Your task to perform on an android device: add a contact in the contacts app Image 0: 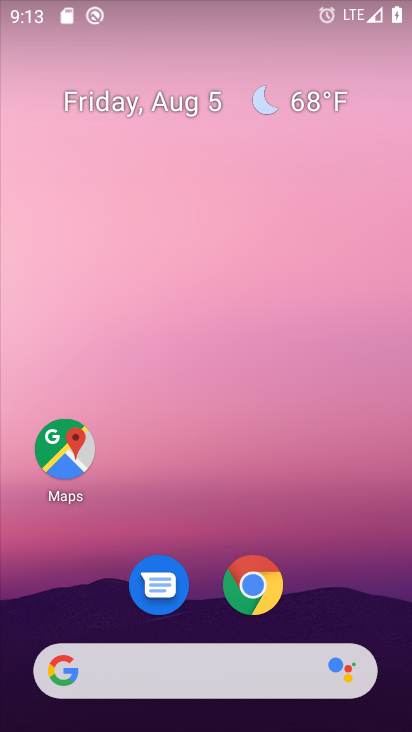
Step 0: drag from (220, 436) to (239, 8)
Your task to perform on an android device: add a contact in the contacts app Image 1: 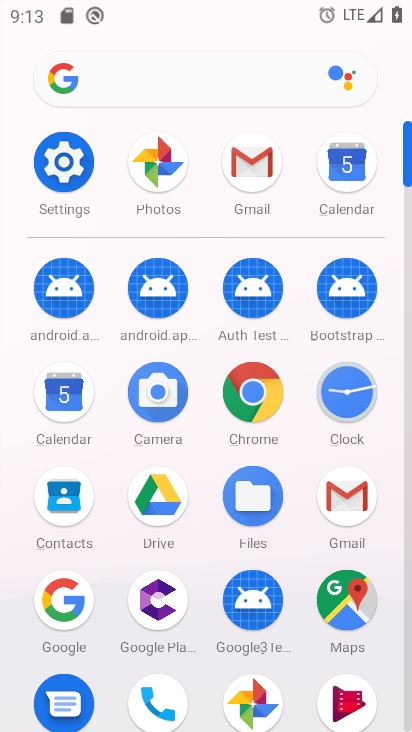
Step 1: click (75, 492)
Your task to perform on an android device: add a contact in the contacts app Image 2: 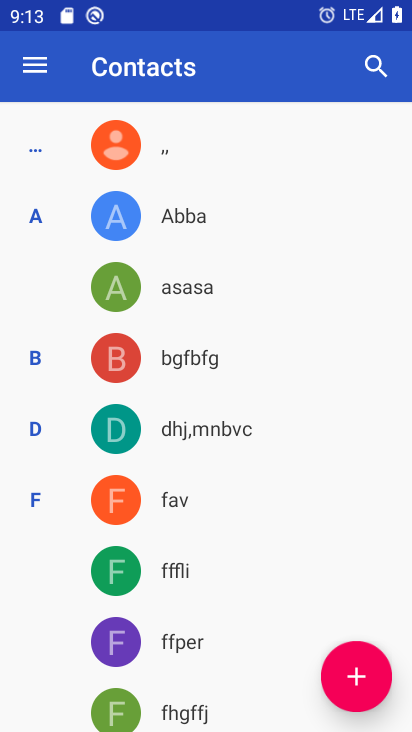
Step 2: click (360, 683)
Your task to perform on an android device: add a contact in the contacts app Image 3: 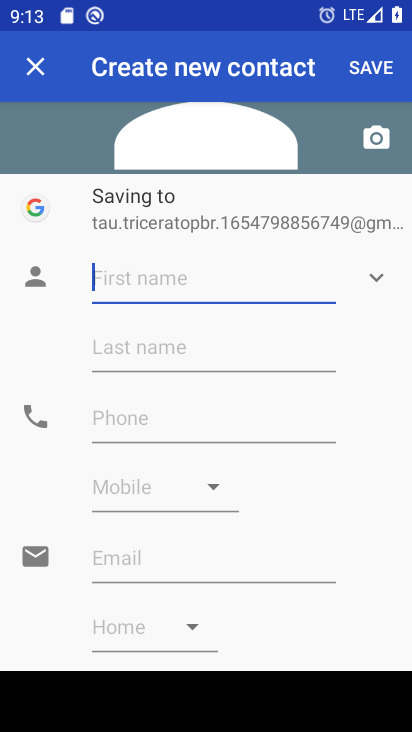
Step 3: type "Abha"
Your task to perform on an android device: add a contact in the contacts app Image 4: 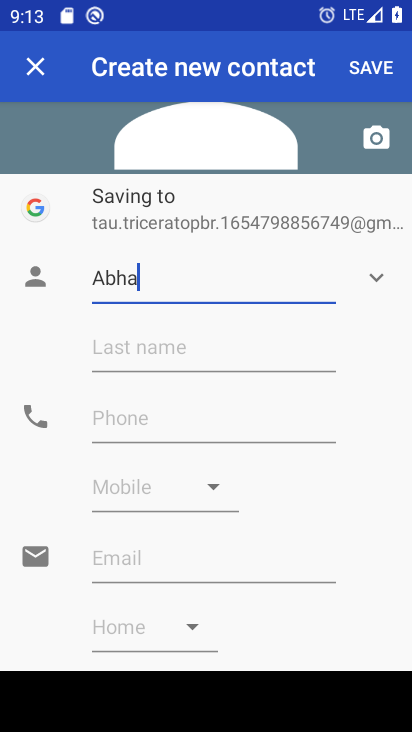
Step 4: click (293, 418)
Your task to perform on an android device: add a contact in the contacts app Image 5: 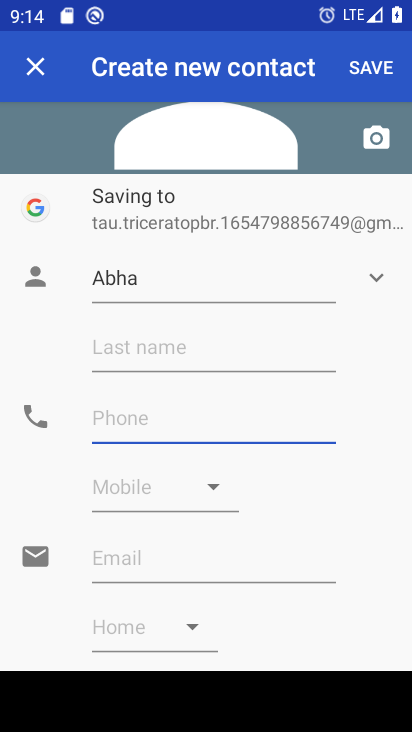
Step 5: type "+9876543210"
Your task to perform on an android device: add a contact in the contacts app Image 6: 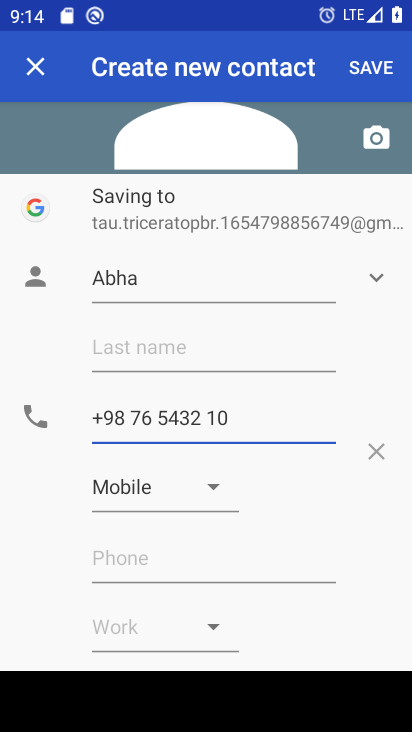
Step 6: click (380, 67)
Your task to perform on an android device: add a contact in the contacts app Image 7: 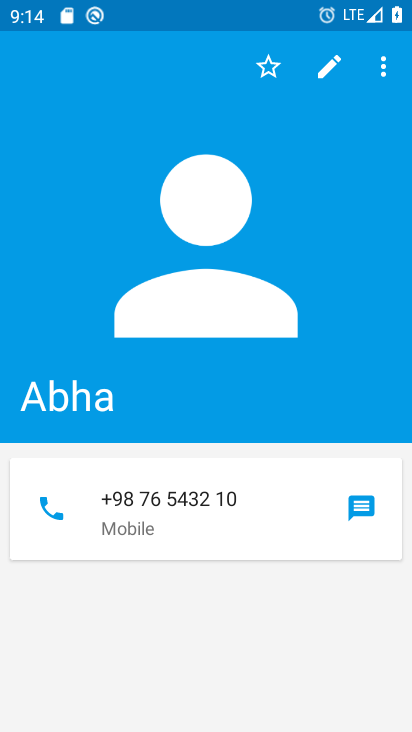
Step 7: task complete